Your task to perform on an android device: Open notification settings Image 0: 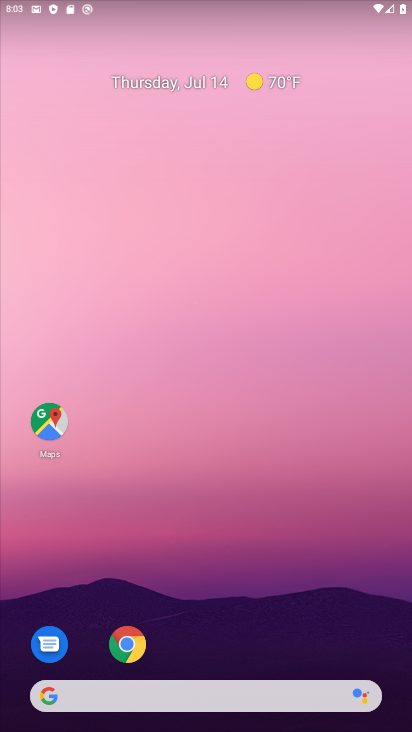
Step 0: drag from (255, 648) to (309, 229)
Your task to perform on an android device: Open notification settings Image 1: 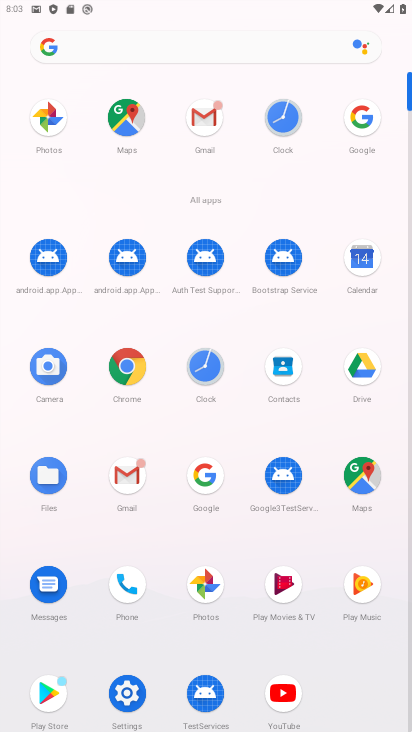
Step 1: click (129, 682)
Your task to perform on an android device: Open notification settings Image 2: 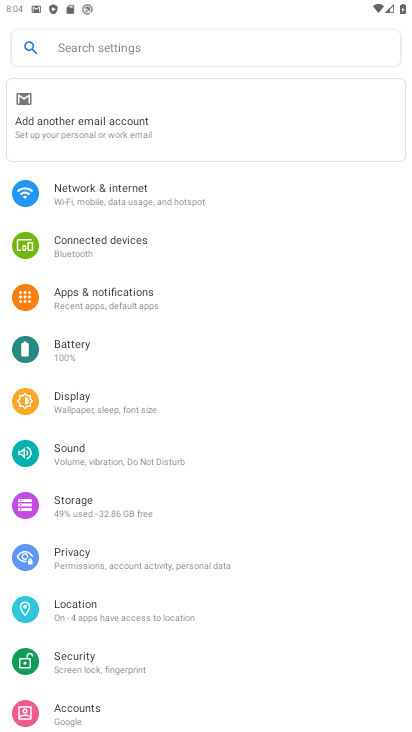
Step 2: click (136, 287)
Your task to perform on an android device: Open notification settings Image 3: 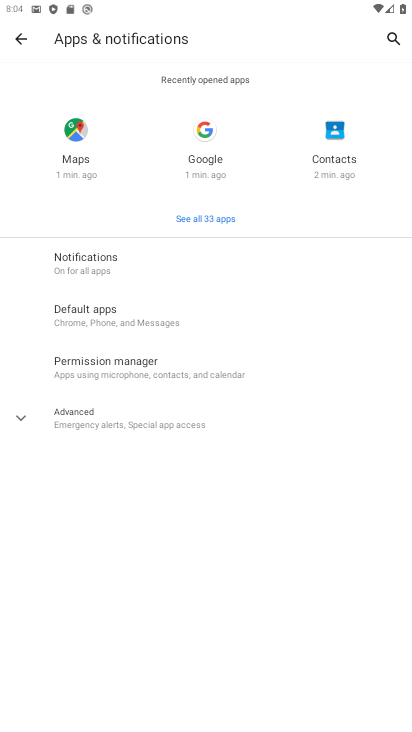
Step 3: click (124, 268)
Your task to perform on an android device: Open notification settings Image 4: 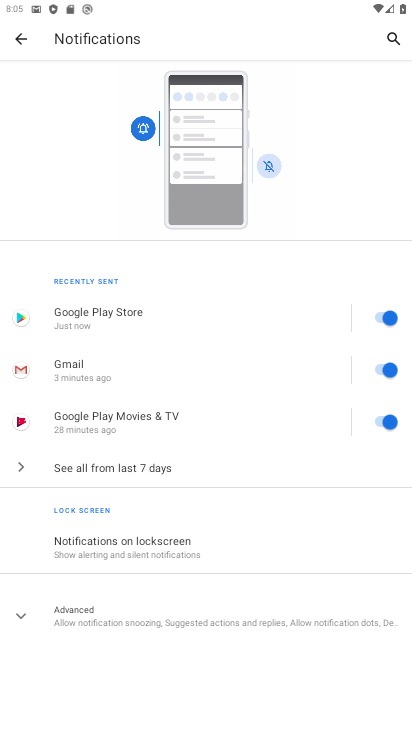
Step 4: click (168, 458)
Your task to perform on an android device: Open notification settings Image 5: 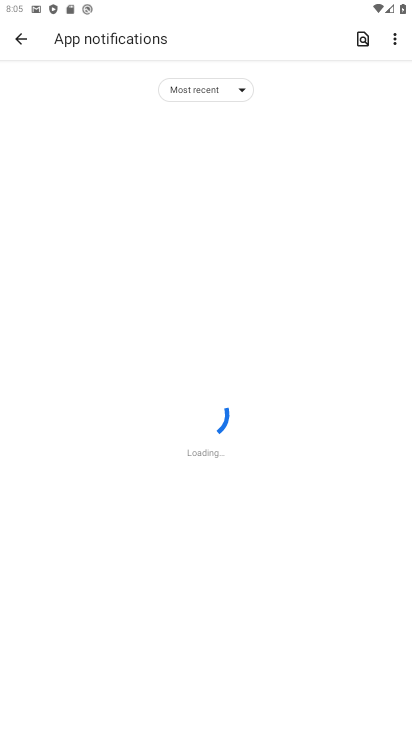
Step 5: task complete